Your task to perform on an android device: choose inbox layout in the gmail app Image 0: 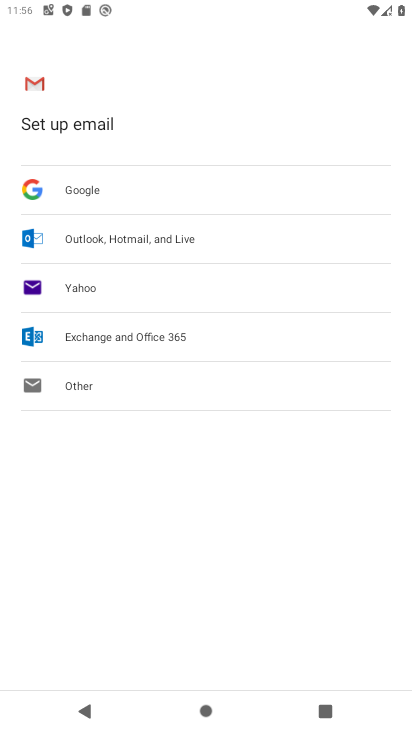
Step 0: press home button
Your task to perform on an android device: choose inbox layout in the gmail app Image 1: 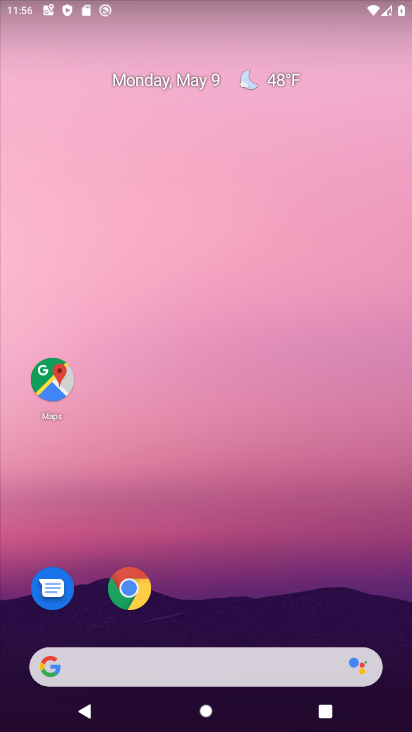
Step 1: drag from (262, 594) to (350, 201)
Your task to perform on an android device: choose inbox layout in the gmail app Image 2: 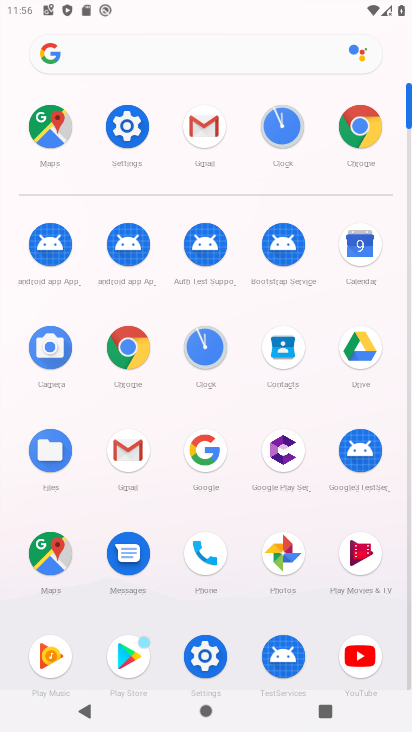
Step 2: click (356, 126)
Your task to perform on an android device: choose inbox layout in the gmail app Image 3: 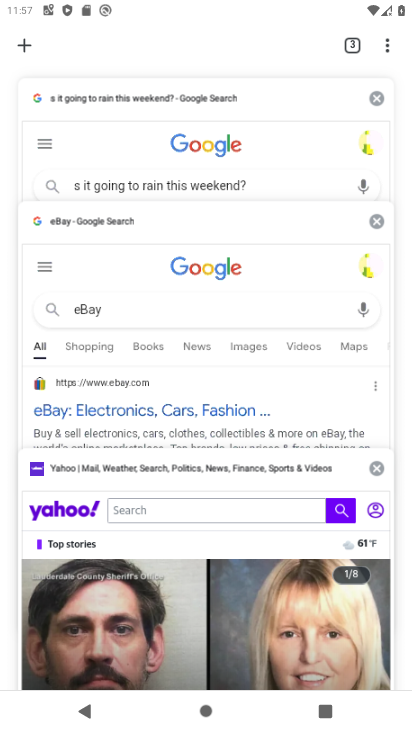
Step 3: click (25, 35)
Your task to perform on an android device: choose inbox layout in the gmail app Image 4: 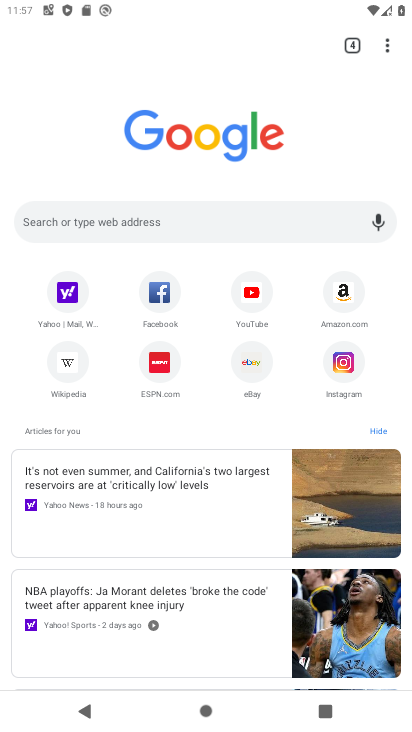
Step 4: press home button
Your task to perform on an android device: choose inbox layout in the gmail app Image 5: 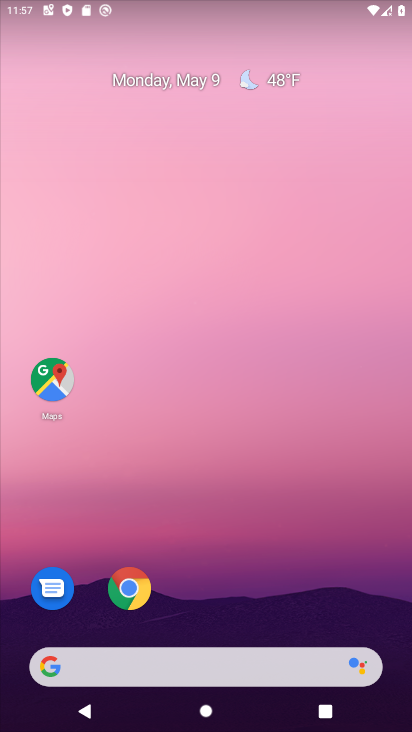
Step 5: click (222, 495)
Your task to perform on an android device: choose inbox layout in the gmail app Image 6: 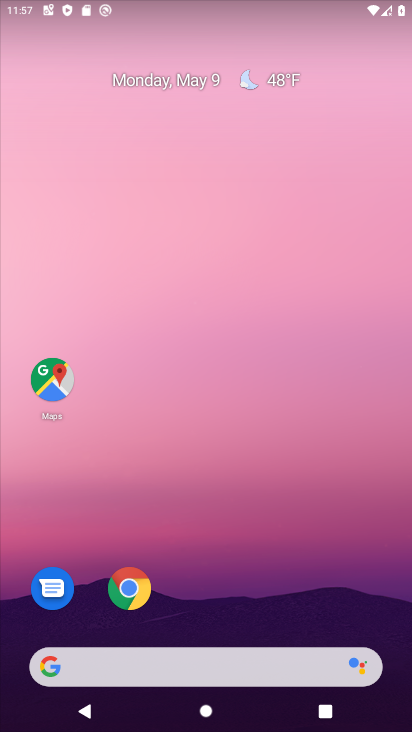
Step 6: click (222, 495)
Your task to perform on an android device: choose inbox layout in the gmail app Image 7: 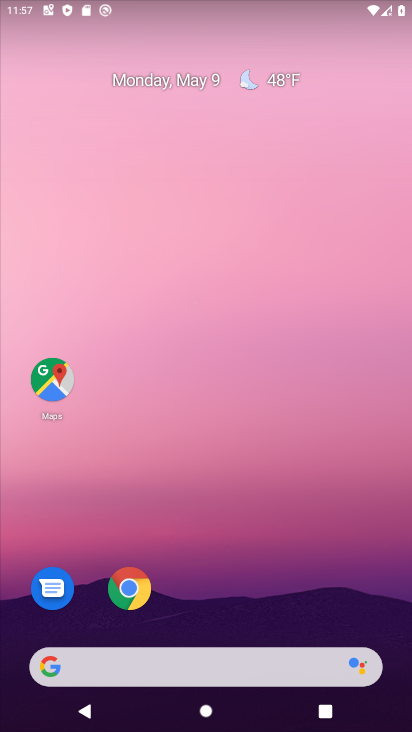
Step 7: drag from (277, 625) to (278, 402)
Your task to perform on an android device: choose inbox layout in the gmail app Image 8: 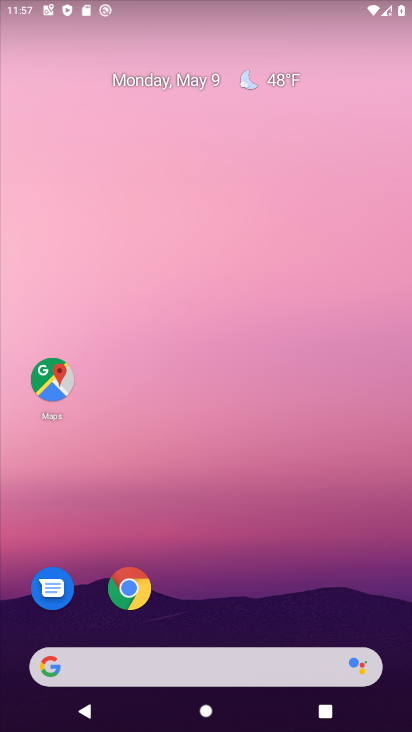
Step 8: drag from (243, 575) to (280, 0)
Your task to perform on an android device: choose inbox layout in the gmail app Image 9: 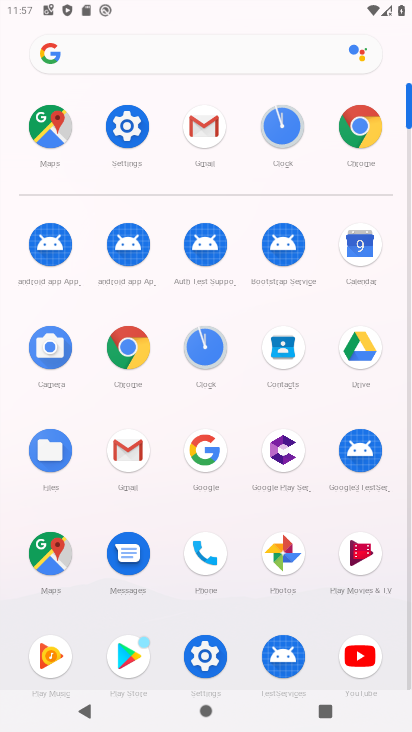
Step 9: click (133, 441)
Your task to perform on an android device: choose inbox layout in the gmail app Image 10: 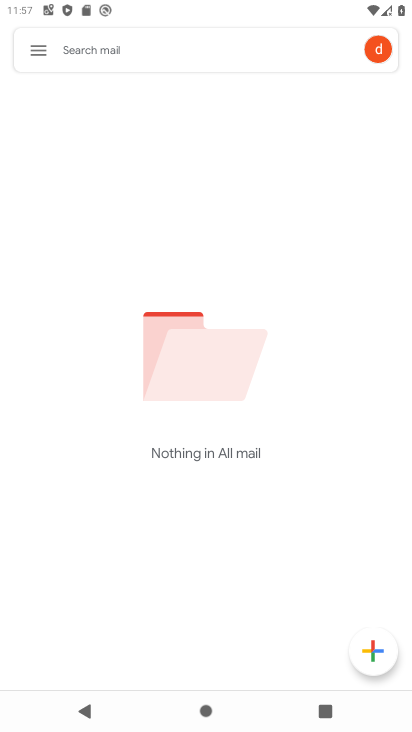
Step 10: click (44, 50)
Your task to perform on an android device: choose inbox layout in the gmail app Image 11: 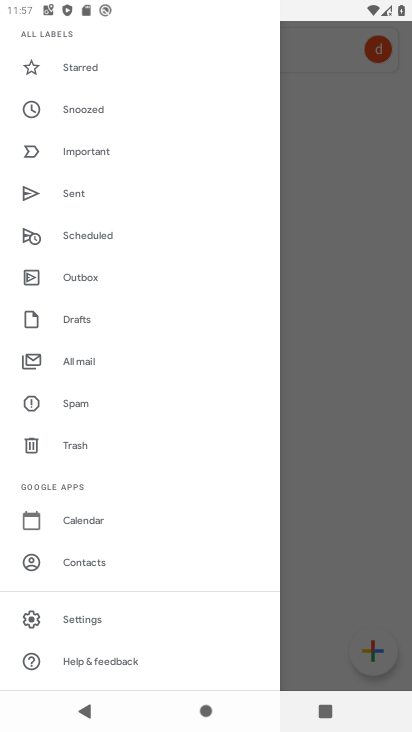
Step 11: click (114, 625)
Your task to perform on an android device: choose inbox layout in the gmail app Image 12: 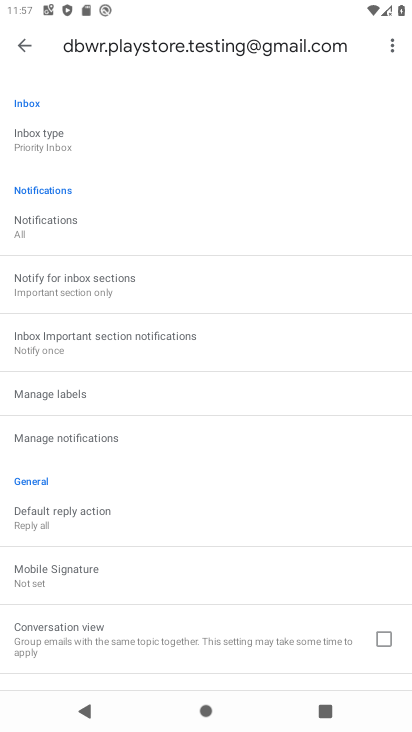
Step 12: click (70, 152)
Your task to perform on an android device: choose inbox layout in the gmail app Image 13: 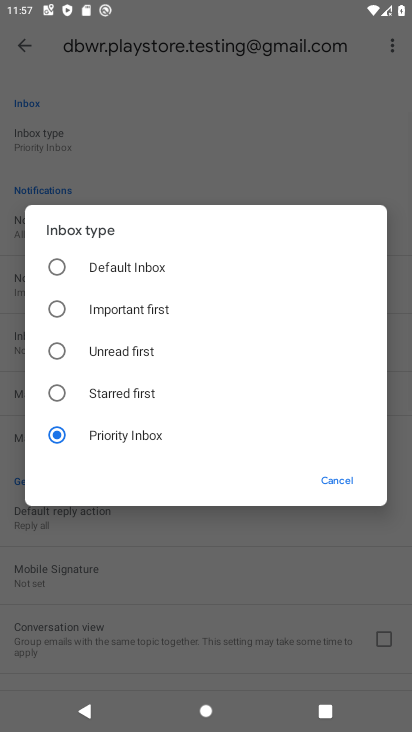
Step 13: click (154, 397)
Your task to perform on an android device: choose inbox layout in the gmail app Image 14: 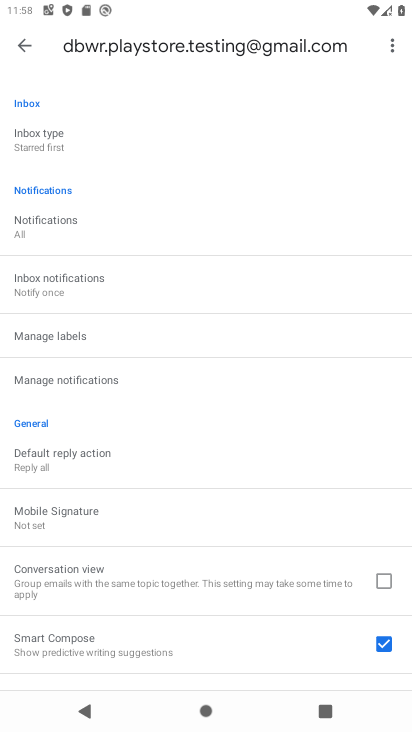
Step 14: task complete